Your task to perform on an android device: turn off javascript in the chrome app Image 0: 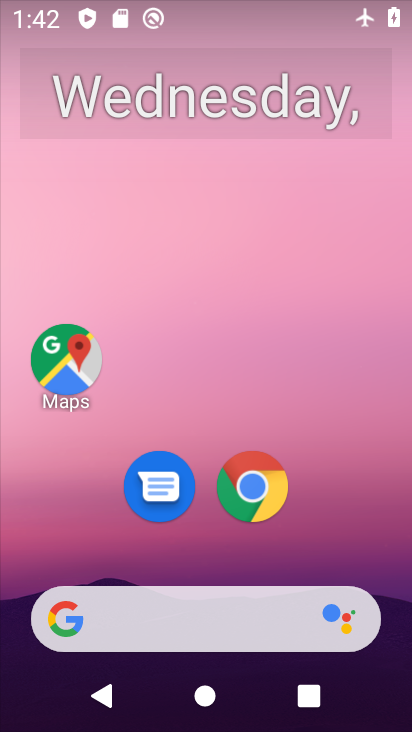
Step 0: click (259, 496)
Your task to perform on an android device: turn off javascript in the chrome app Image 1: 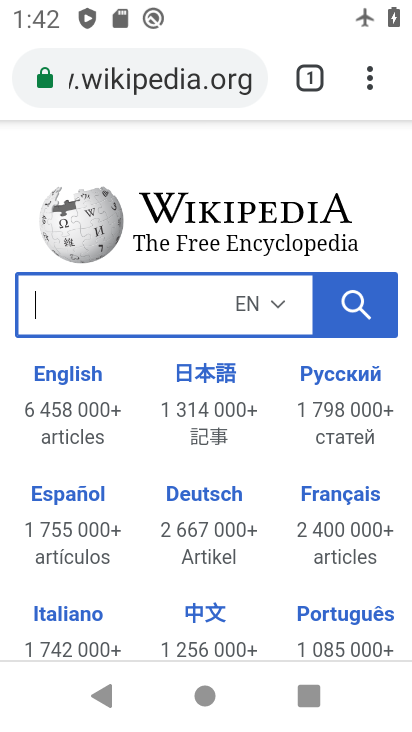
Step 1: click (368, 84)
Your task to perform on an android device: turn off javascript in the chrome app Image 2: 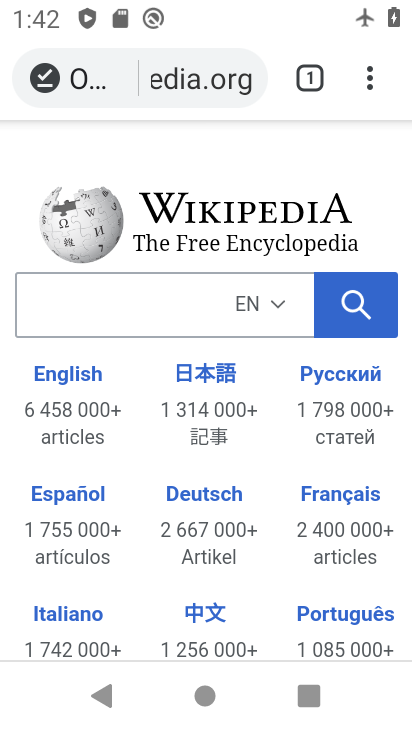
Step 2: click (380, 78)
Your task to perform on an android device: turn off javascript in the chrome app Image 3: 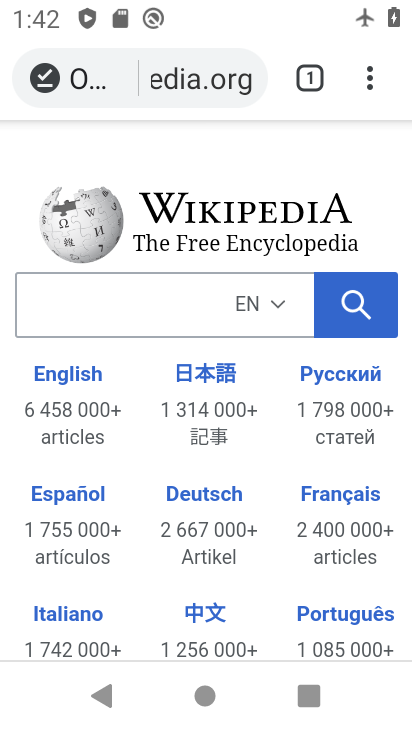
Step 3: click (373, 86)
Your task to perform on an android device: turn off javascript in the chrome app Image 4: 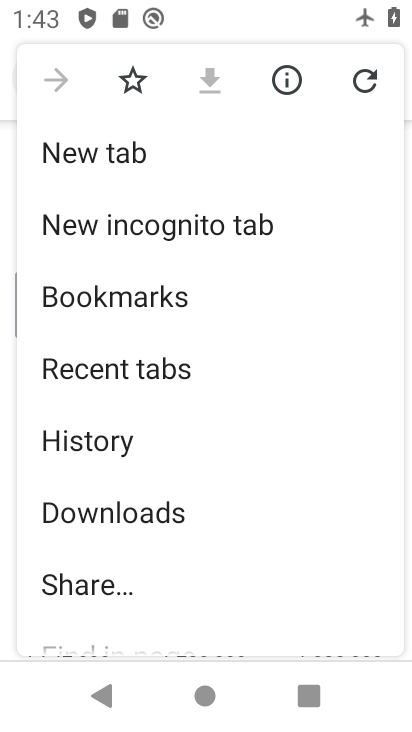
Step 4: drag from (222, 617) to (283, 24)
Your task to perform on an android device: turn off javascript in the chrome app Image 5: 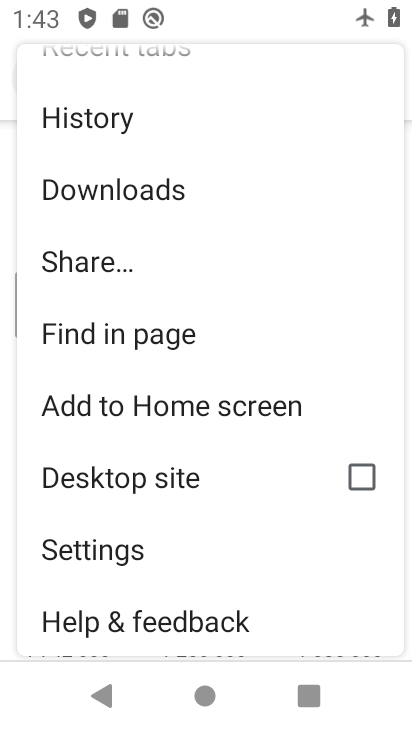
Step 5: click (144, 548)
Your task to perform on an android device: turn off javascript in the chrome app Image 6: 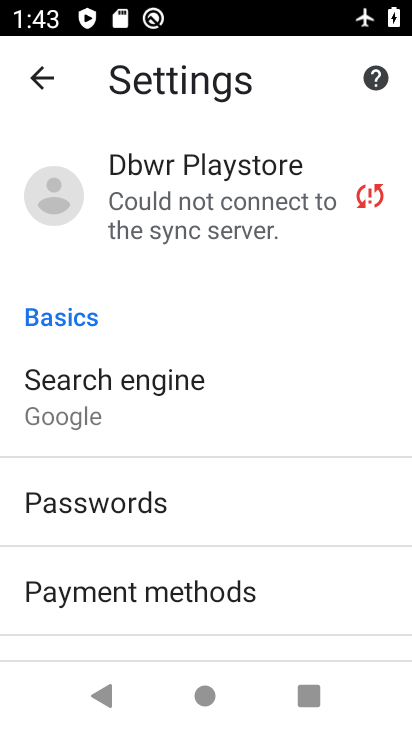
Step 6: drag from (307, 554) to (347, 8)
Your task to perform on an android device: turn off javascript in the chrome app Image 7: 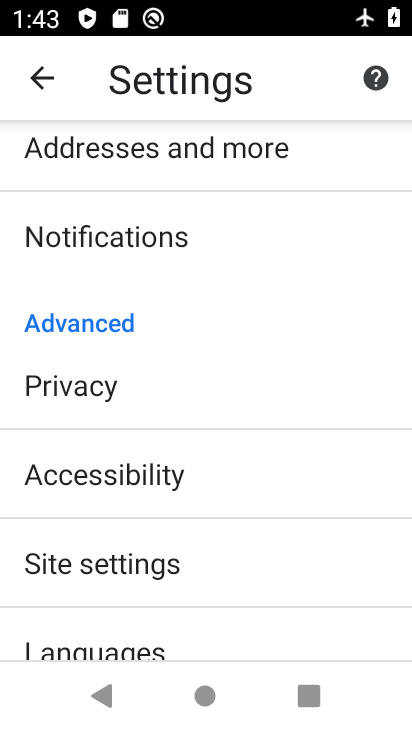
Step 7: click (176, 561)
Your task to perform on an android device: turn off javascript in the chrome app Image 8: 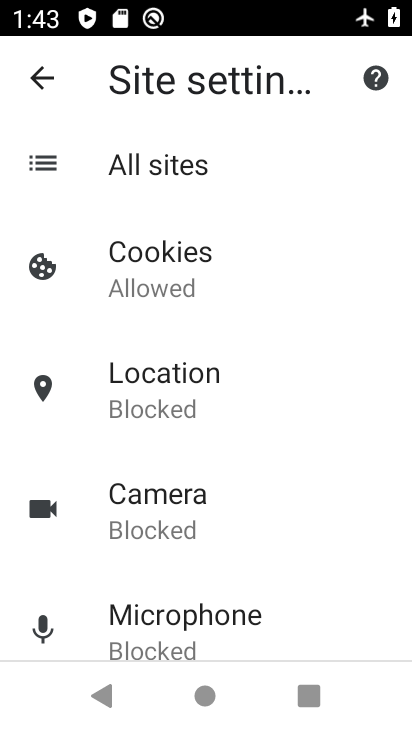
Step 8: drag from (249, 623) to (240, 101)
Your task to perform on an android device: turn off javascript in the chrome app Image 9: 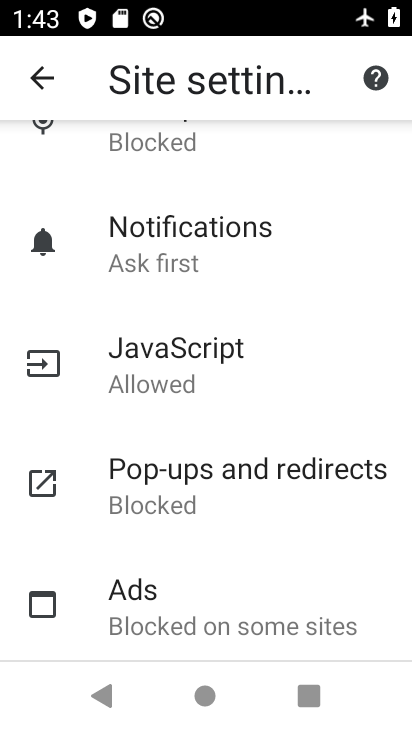
Step 9: click (227, 368)
Your task to perform on an android device: turn off javascript in the chrome app Image 10: 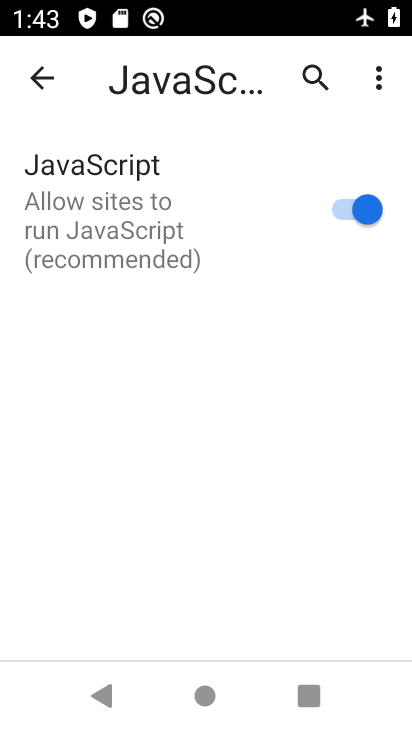
Step 10: task complete